Your task to perform on an android device: change alarm snooze length Image 0: 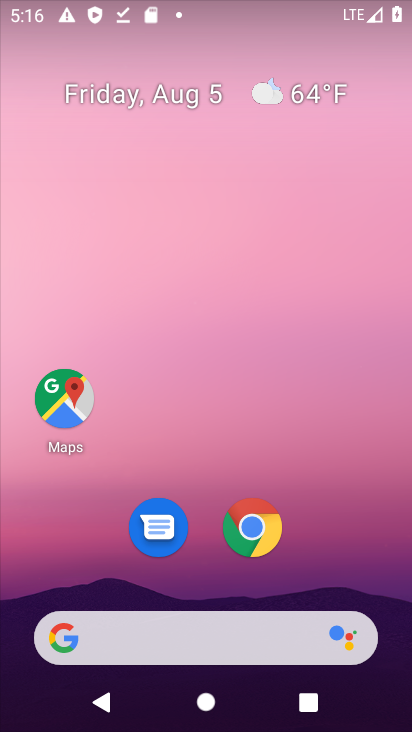
Step 0: drag from (187, 625) to (213, 54)
Your task to perform on an android device: change alarm snooze length Image 1: 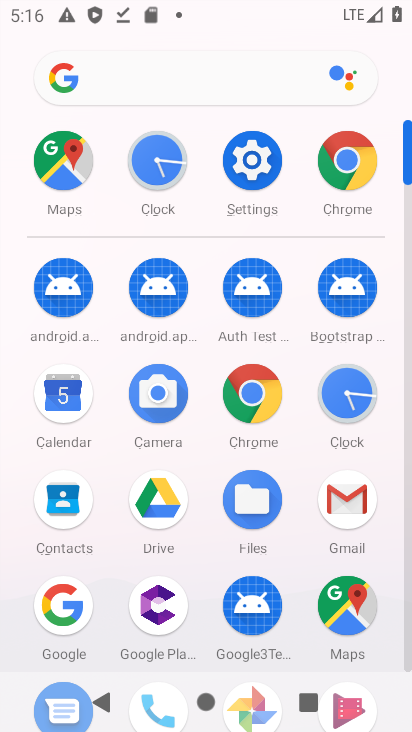
Step 1: drag from (224, 570) to (169, 398)
Your task to perform on an android device: change alarm snooze length Image 2: 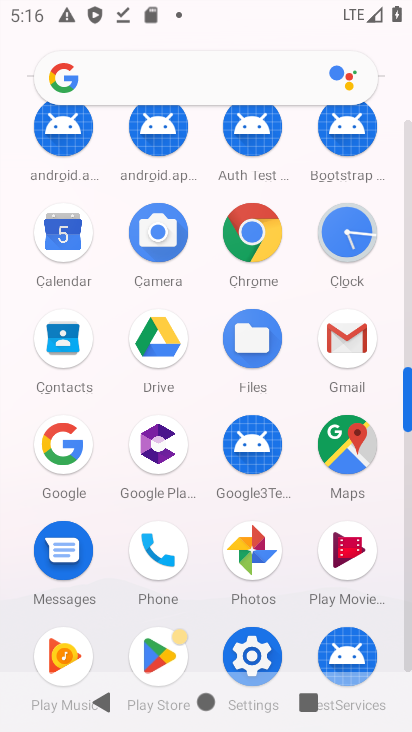
Step 2: click (348, 215)
Your task to perform on an android device: change alarm snooze length Image 3: 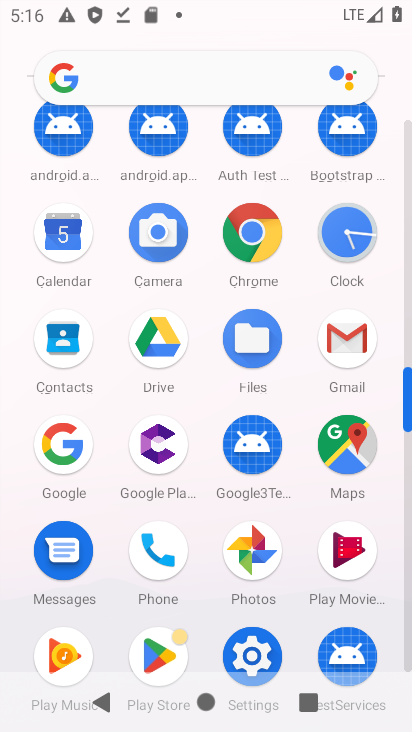
Step 3: click (348, 215)
Your task to perform on an android device: change alarm snooze length Image 4: 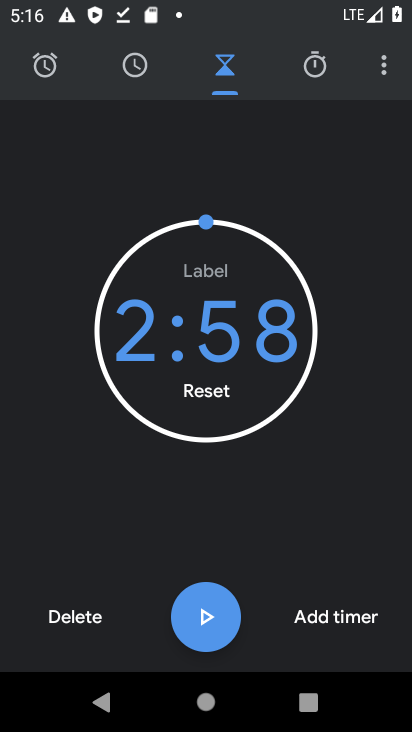
Step 4: drag from (382, 68) to (290, 128)
Your task to perform on an android device: change alarm snooze length Image 5: 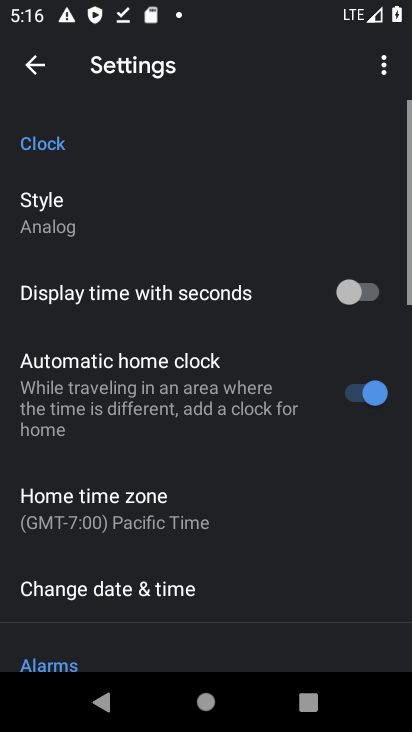
Step 5: drag from (171, 448) to (195, 264)
Your task to perform on an android device: change alarm snooze length Image 6: 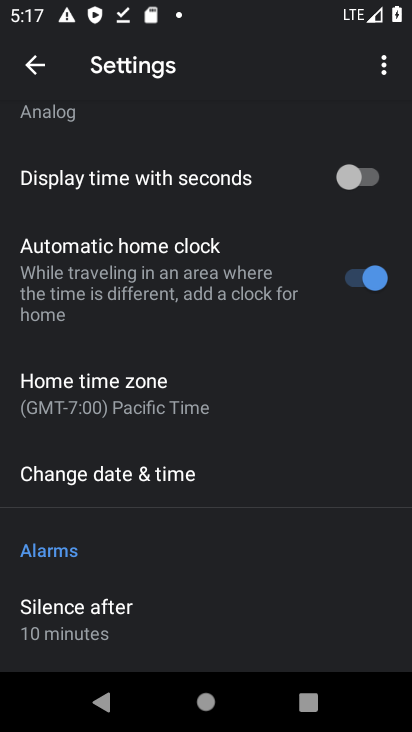
Step 6: drag from (189, 555) to (230, 236)
Your task to perform on an android device: change alarm snooze length Image 7: 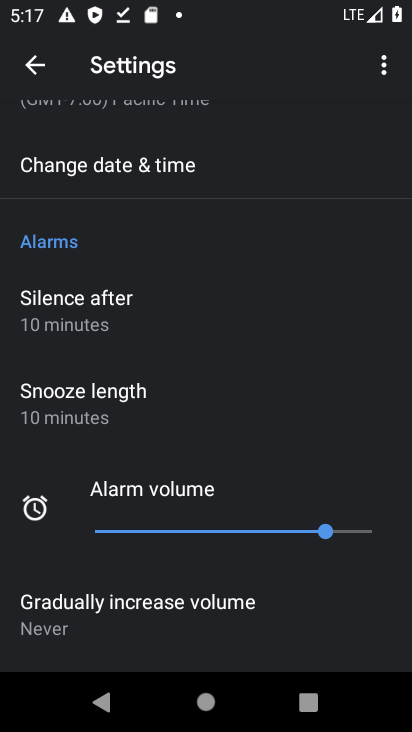
Step 7: click (92, 408)
Your task to perform on an android device: change alarm snooze length Image 8: 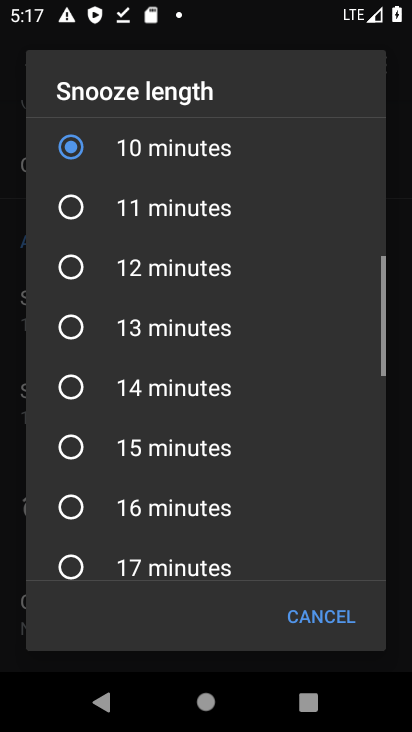
Step 8: drag from (197, 201) to (207, 570)
Your task to perform on an android device: change alarm snooze length Image 9: 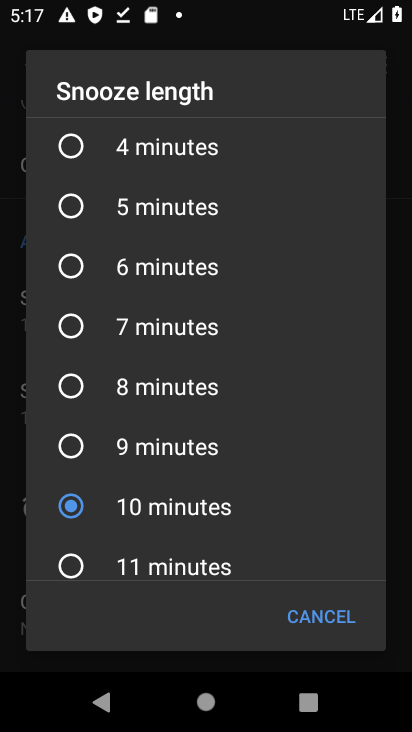
Step 9: drag from (149, 178) to (189, 484)
Your task to perform on an android device: change alarm snooze length Image 10: 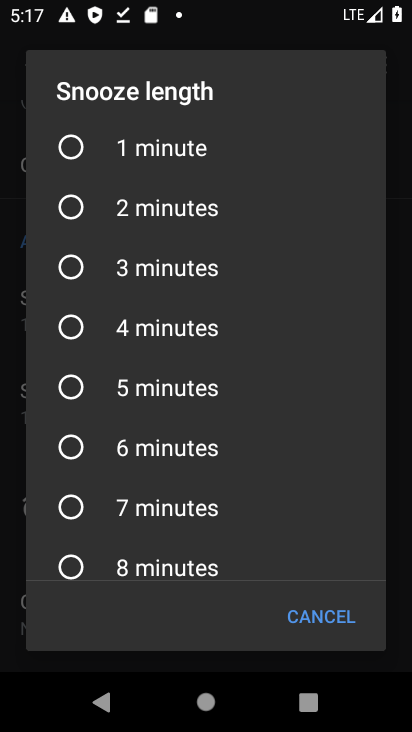
Step 10: click (114, 149)
Your task to perform on an android device: change alarm snooze length Image 11: 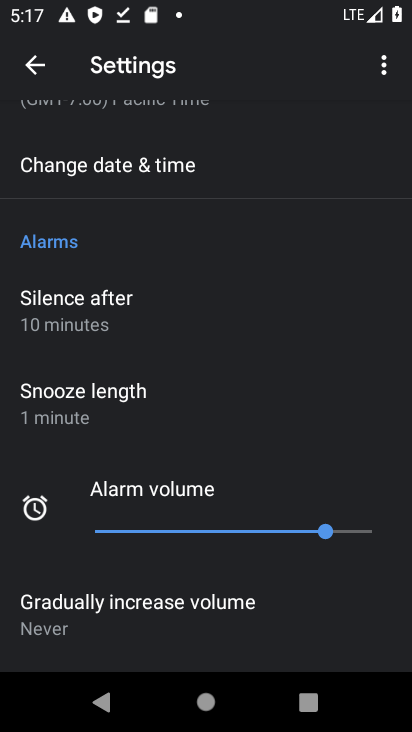
Step 11: task complete